Your task to perform on an android device: see tabs open on other devices in the chrome app Image 0: 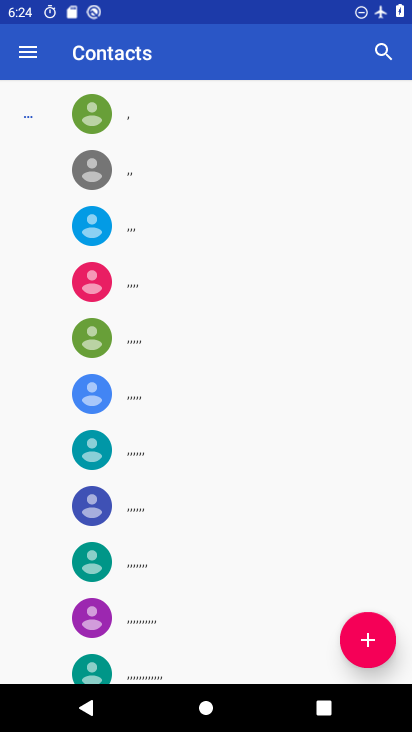
Step 0: press home button
Your task to perform on an android device: see tabs open on other devices in the chrome app Image 1: 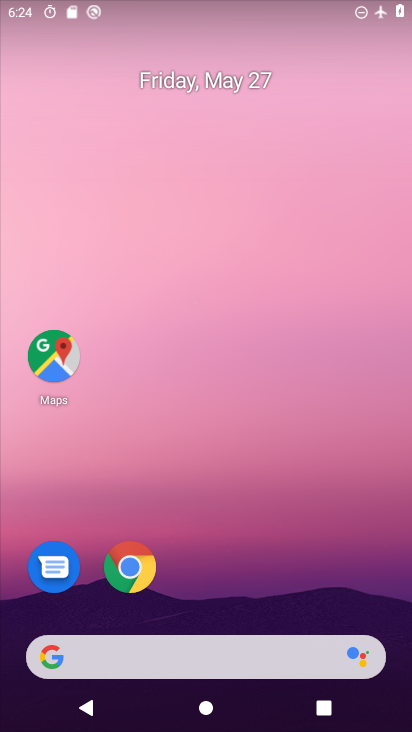
Step 1: click (133, 560)
Your task to perform on an android device: see tabs open on other devices in the chrome app Image 2: 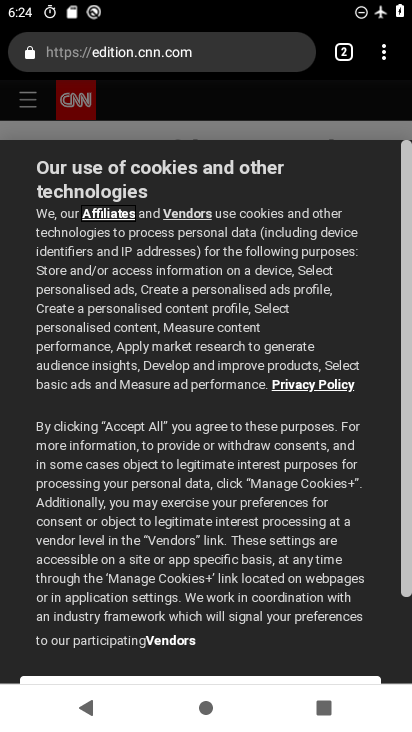
Step 2: click (386, 51)
Your task to perform on an android device: see tabs open on other devices in the chrome app Image 3: 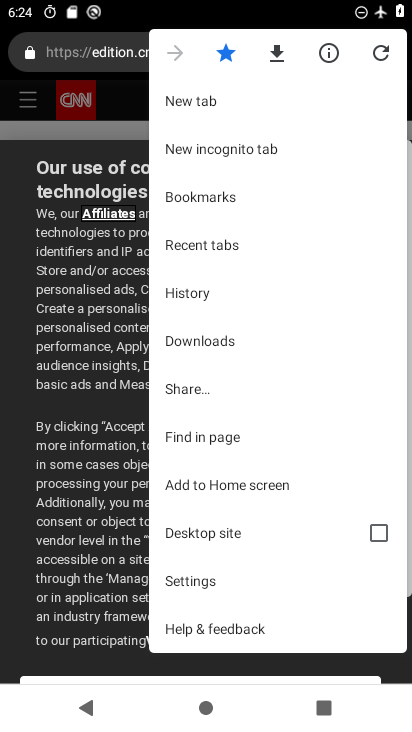
Step 3: click (210, 254)
Your task to perform on an android device: see tabs open on other devices in the chrome app Image 4: 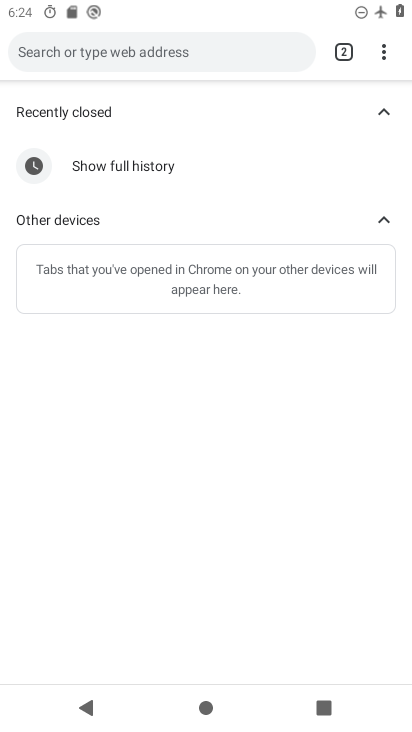
Step 4: task complete